Your task to perform on an android device: empty trash in google photos Image 0: 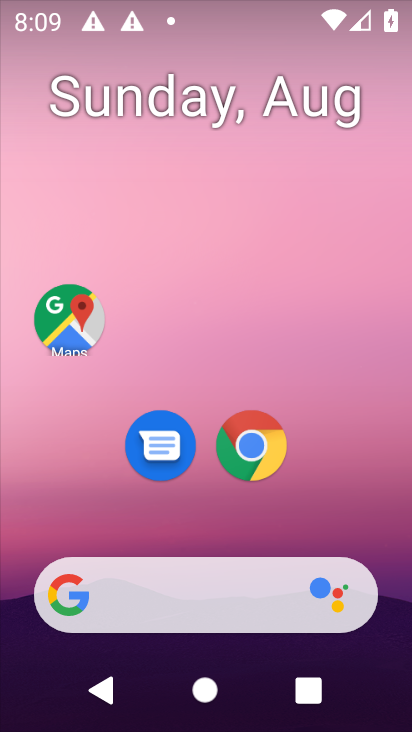
Step 0: press home button
Your task to perform on an android device: empty trash in google photos Image 1: 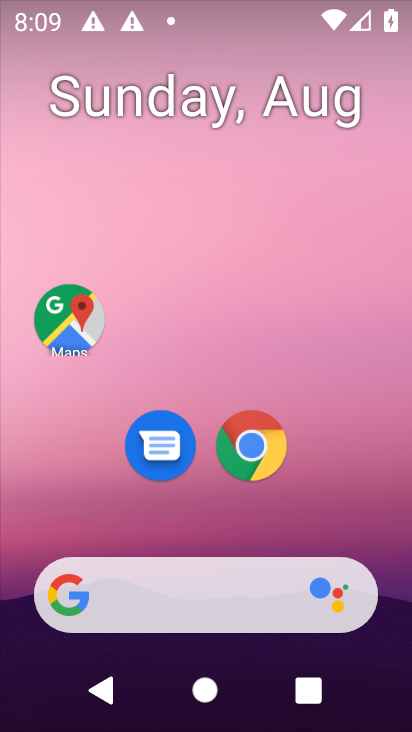
Step 1: drag from (198, 520) to (208, 6)
Your task to perform on an android device: empty trash in google photos Image 2: 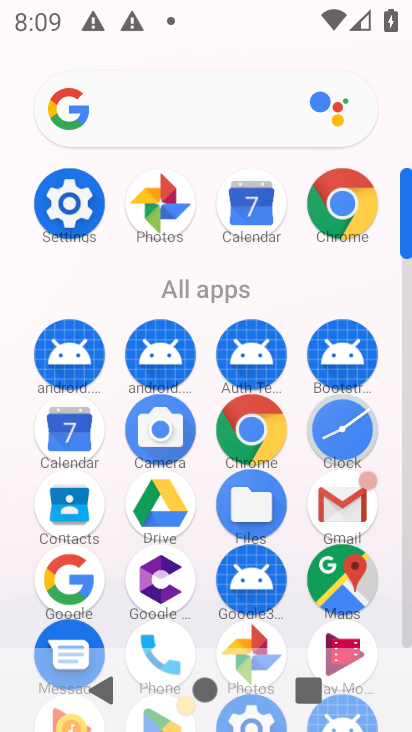
Step 2: click (157, 197)
Your task to perform on an android device: empty trash in google photos Image 3: 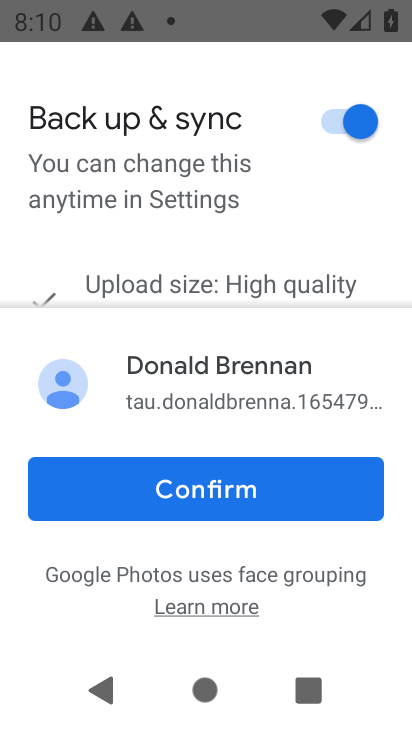
Step 3: click (213, 495)
Your task to perform on an android device: empty trash in google photos Image 4: 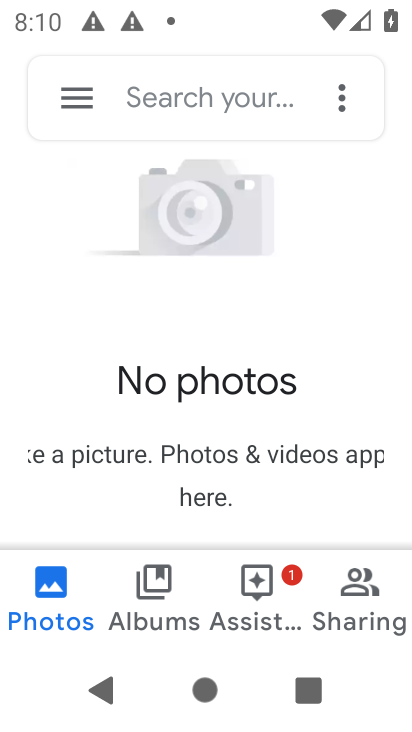
Step 4: click (75, 92)
Your task to perform on an android device: empty trash in google photos Image 5: 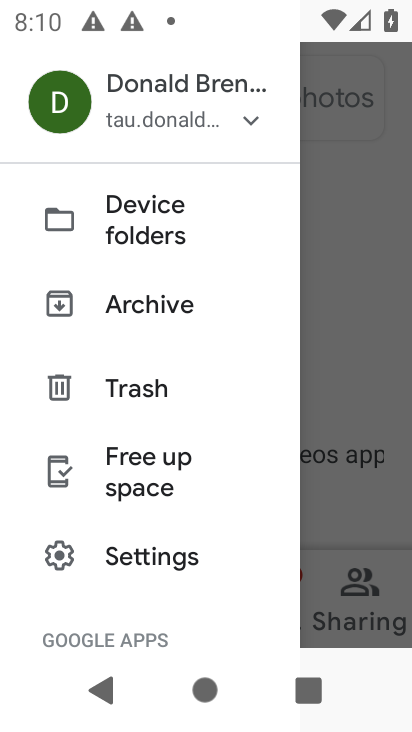
Step 5: click (93, 379)
Your task to perform on an android device: empty trash in google photos Image 6: 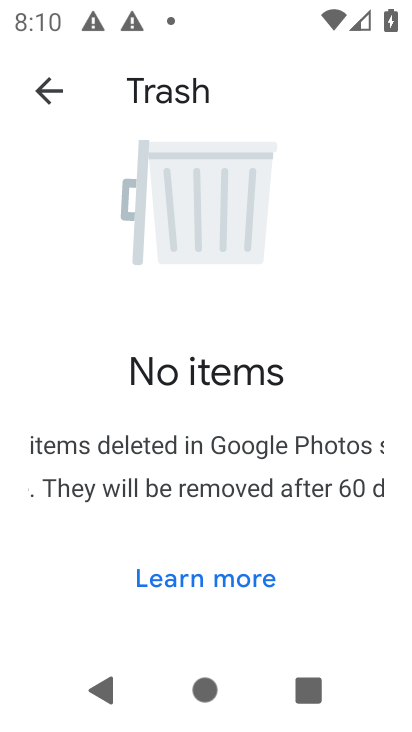
Step 6: task complete